Your task to perform on an android device: Open the phone app and click the voicemail tab. Image 0: 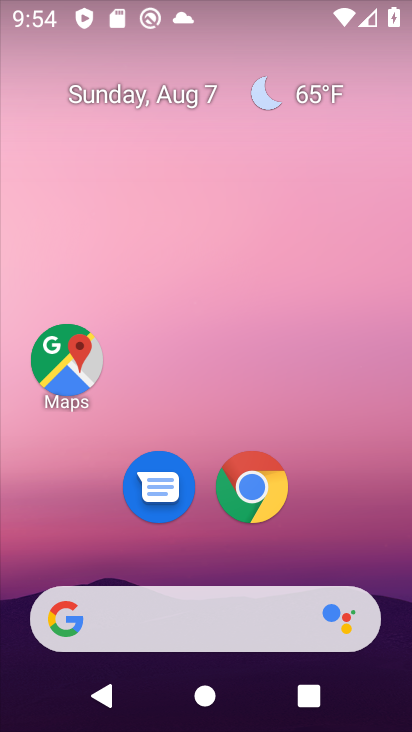
Step 0: drag from (368, 628) to (217, 38)
Your task to perform on an android device: Open the phone app and click the voicemail tab. Image 1: 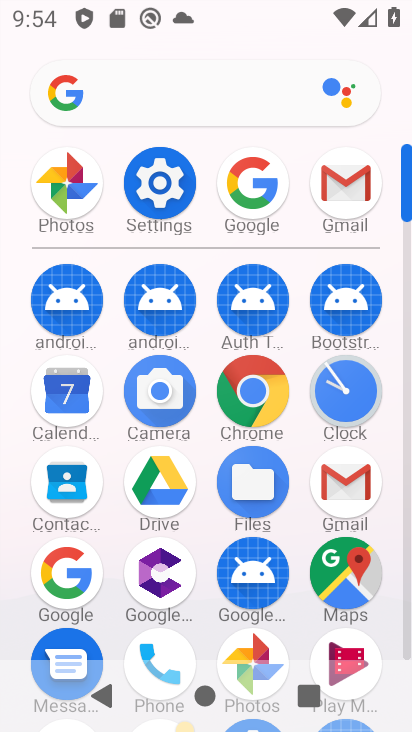
Step 1: click (143, 655)
Your task to perform on an android device: Open the phone app and click the voicemail tab. Image 2: 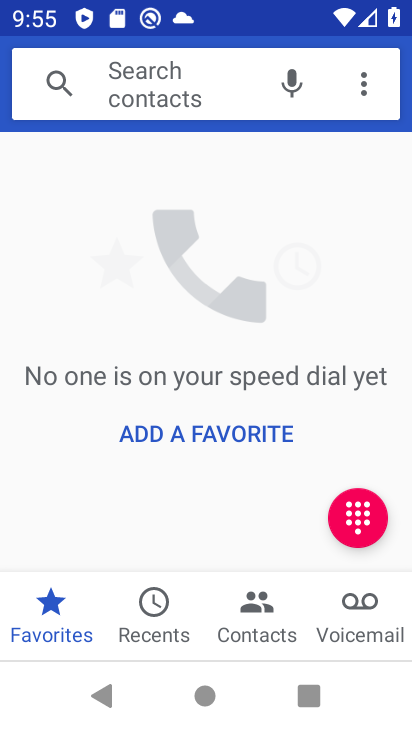
Step 2: click (377, 624)
Your task to perform on an android device: Open the phone app and click the voicemail tab. Image 3: 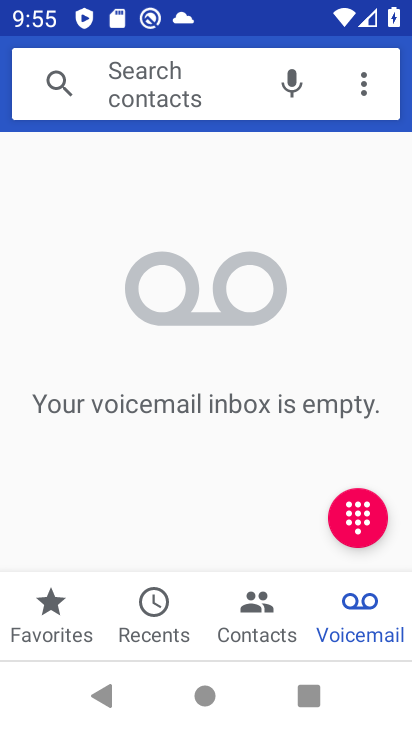
Step 3: task complete